Your task to perform on an android device: turn on data saver in the chrome app Image 0: 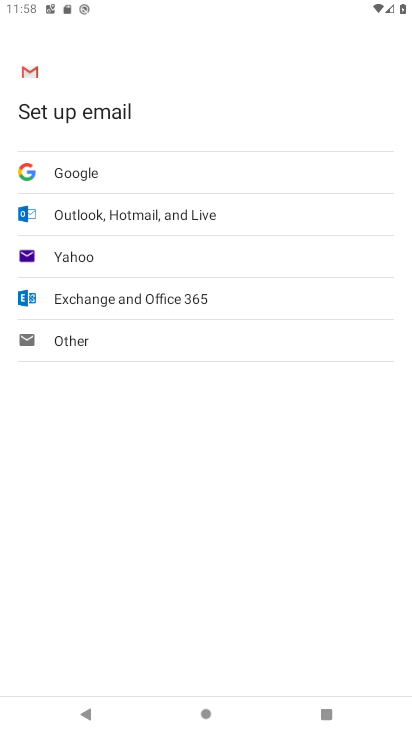
Step 0: press home button
Your task to perform on an android device: turn on data saver in the chrome app Image 1: 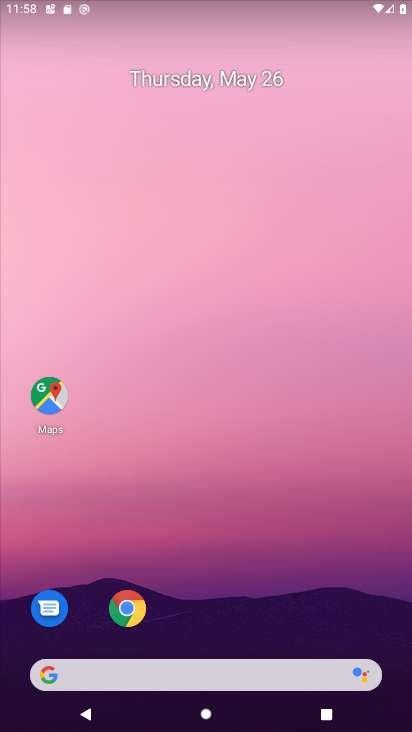
Step 1: drag from (394, 677) to (352, 233)
Your task to perform on an android device: turn on data saver in the chrome app Image 2: 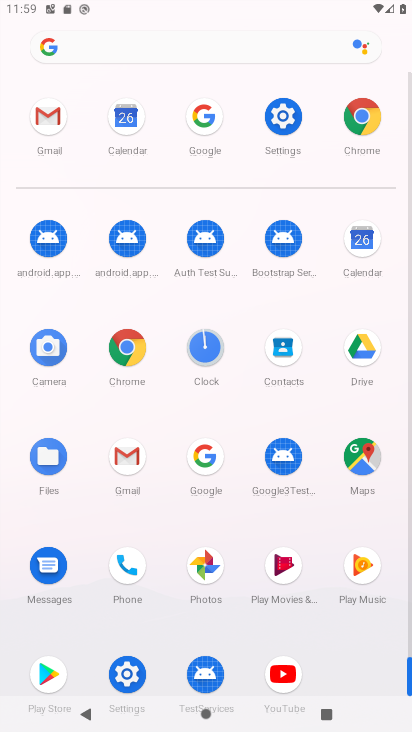
Step 2: click (365, 115)
Your task to perform on an android device: turn on data saver in the chrome app Image 3: 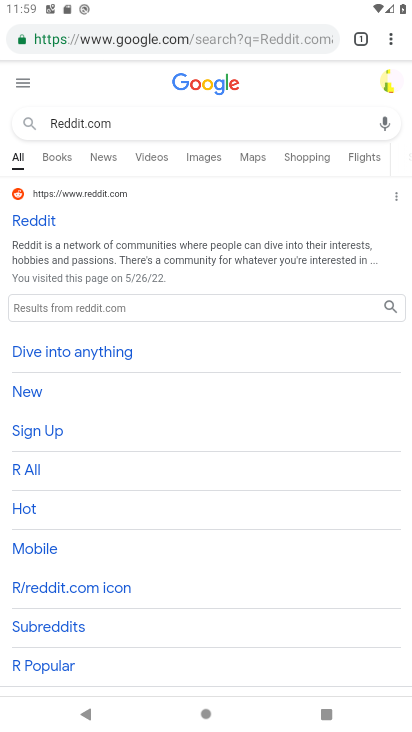
Step 3: click (388, 39)
Your task to perform on an android device: turn on data saver in the chrome app Image 4: 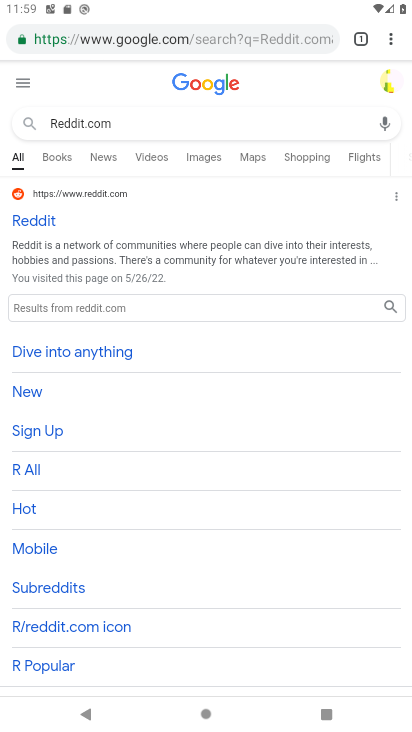
Step 4: click (390, 34)
Your task to perform on an android device: turn on data saver in the chrome app Image 5: 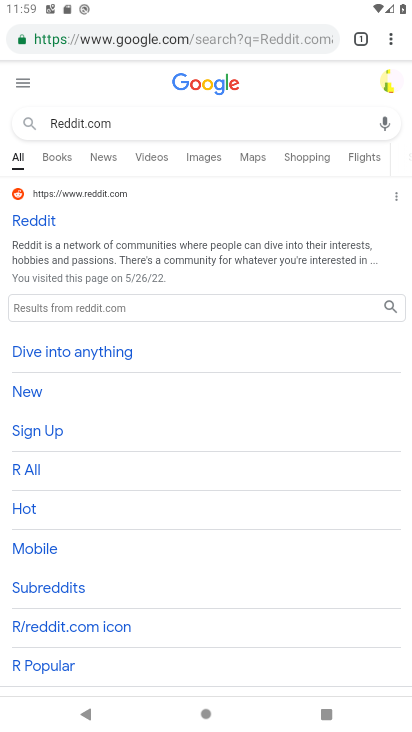
Step 5: click (391, 36)
Your task to perform on an android device: turn on data saver in the chrome app Image 6: 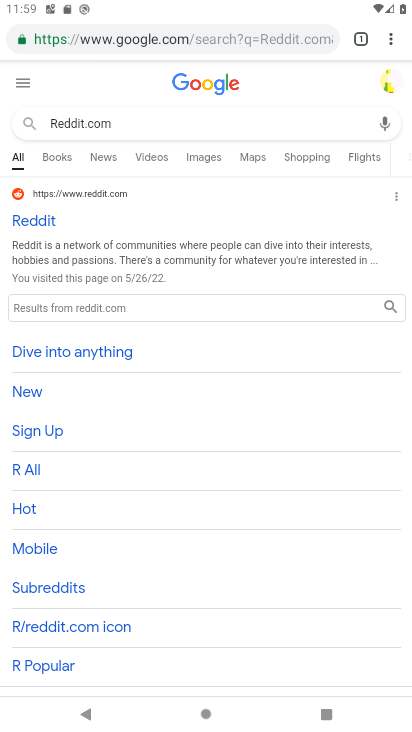
Step 6: click (391, 36)
Your task to perform on an android device: turn on data saver in the chrome app Image 7: 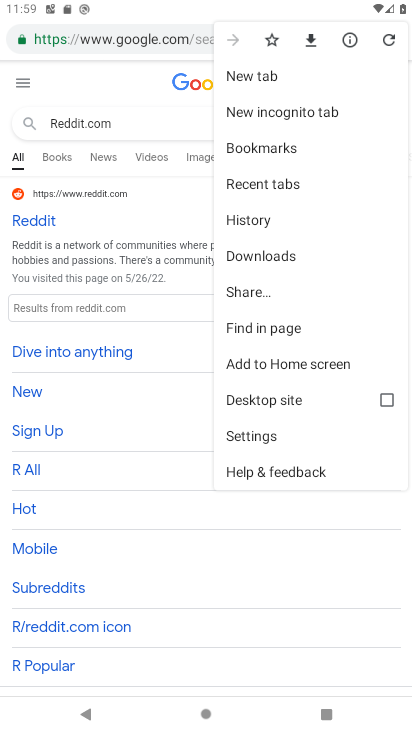
Step 7: click (241, 432)
Your task to perform on an android device: turn on data saver in the chrome app Image 8: 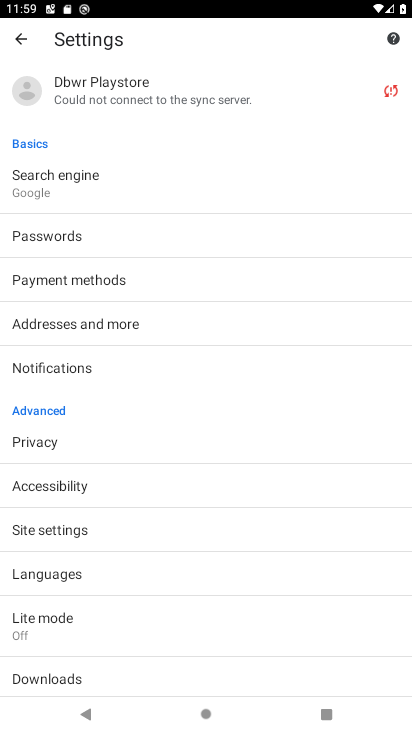
Step 8: click (56, 625)
Your task to perform on an android device: turn on data saver in the chrome app Image 9: 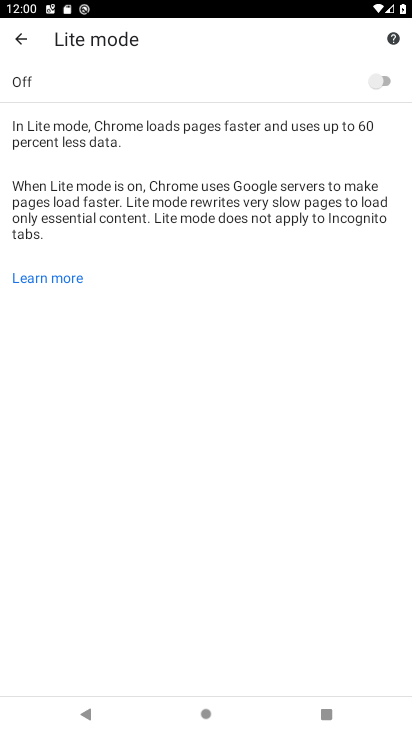
Step 9: click (387, 82)
Your task to perform on an android device: turn on data saver in the chrome app Image 10: 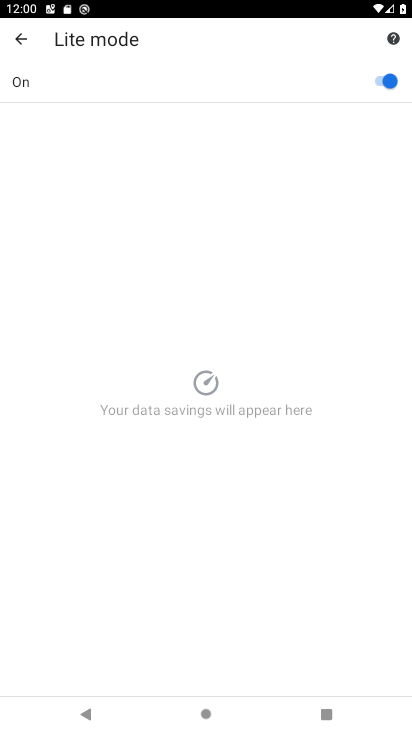
Step 10: task complete